Your task to perform on an android device: clear all cookies in the chrome app Image 0: 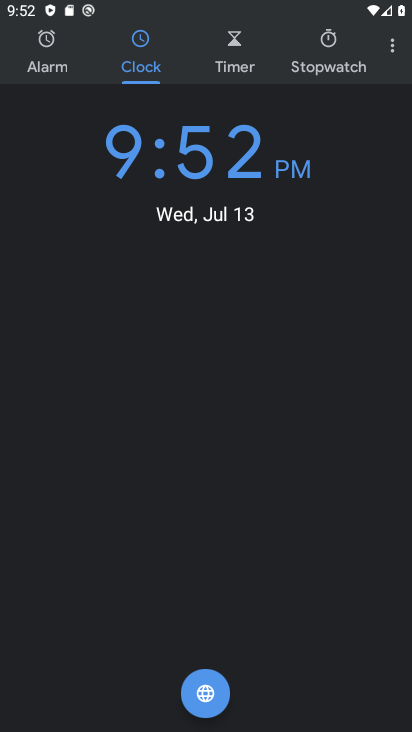
Step 0: press home button
Your task to perform on an android device: clear all cookies in the chrome app Image 1: 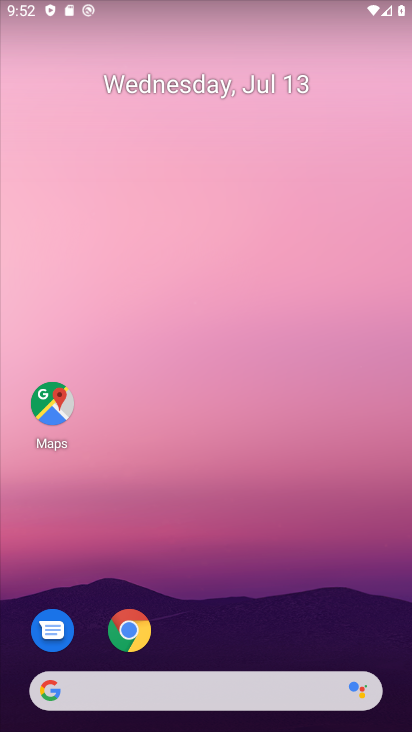
Step 1: click (128, 632)
Your task to perform on an android device: clear all cookies in the chrome app Image 2: 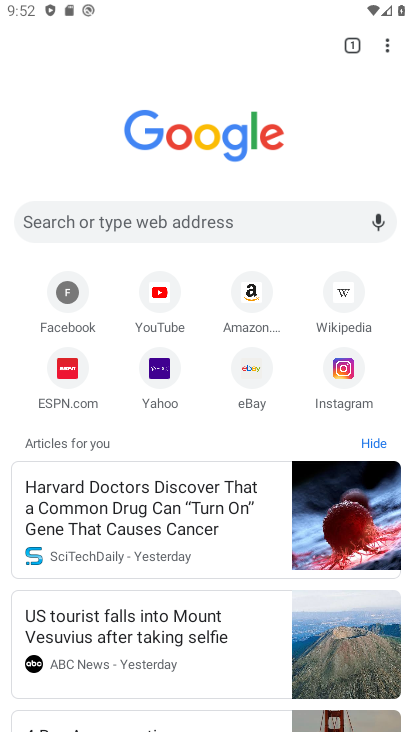
Step 2: click (386, 52)
Your task to perform on an android device: clear all cookies in the chrome app Image 3: 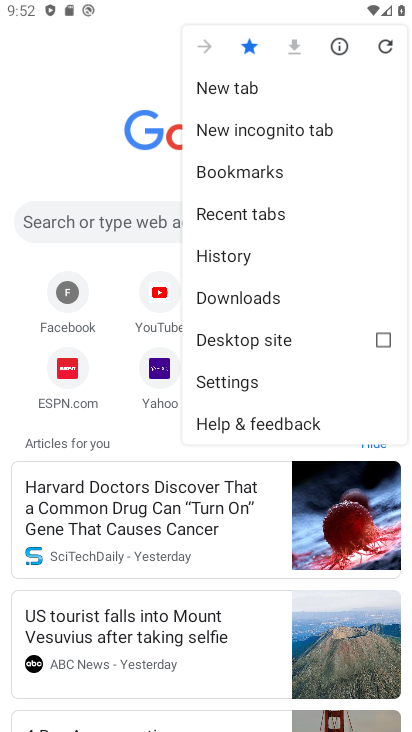
Step 3: click (244, 257)
Your task to perform on an android device: clear all cookies in the chrome app Image 4: 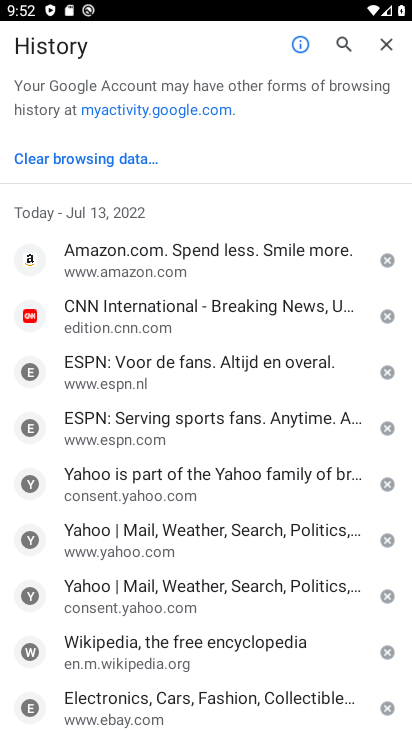
Step 4: click (102, 164)
Your task to perform on an android device: clear all cookies in the chrome app Image 5: 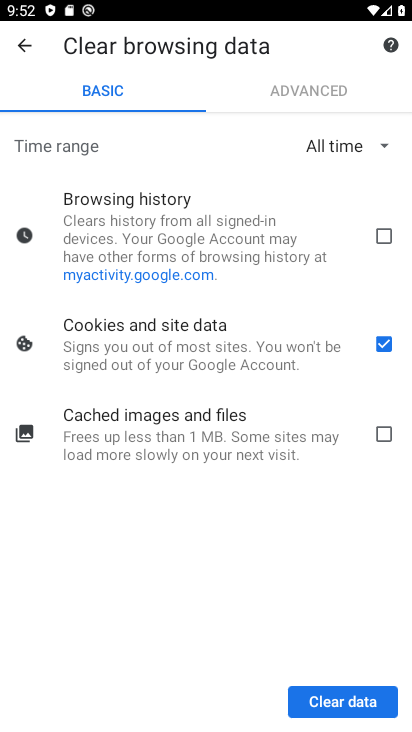
Step 5: click (355, 711)
Your task to perform on an android device: clear all cookies in the chrome app Image 6: 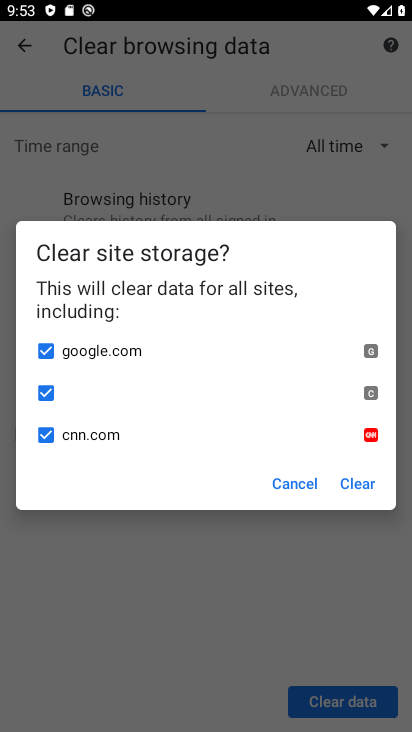
Step 6: click (357, 480)
Your task to perform on an android device: clear all cookies in the chrome app Image 7: 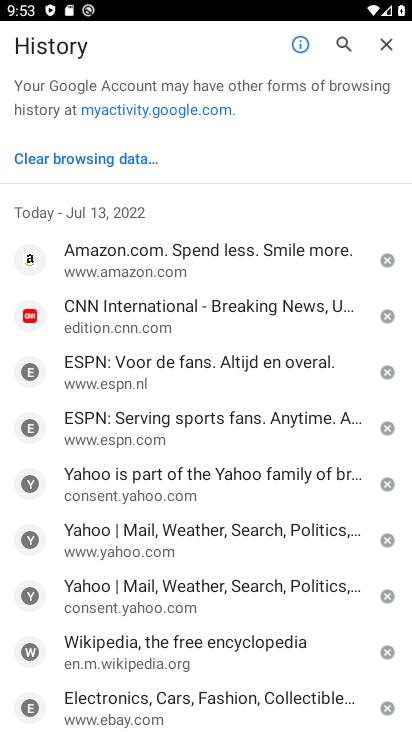
Step 7: task complete